Your task to perform on an android device: toggle translation in the chrome app Image 0: 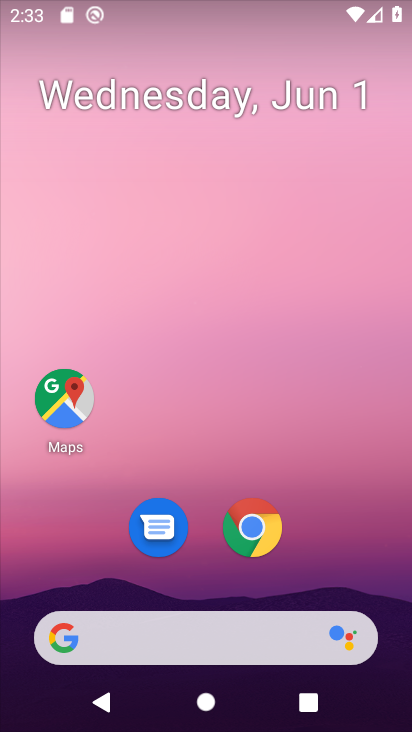
Step 0: click (262, 516)
Your task to perform on an android device: toggle translation in the chrome app Image 1: 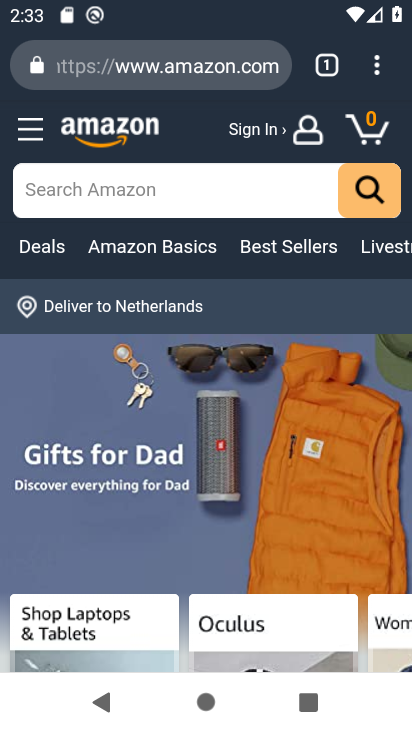
Step 1: click (372, 61)
Your task to perform on an android device: toggle translation in the chrome app Image 2: 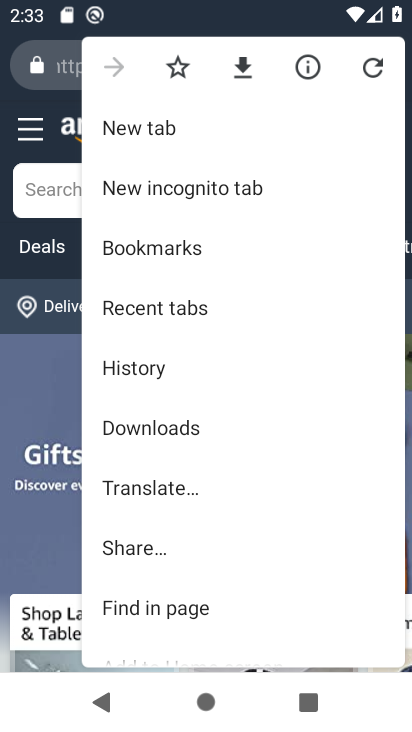
Step 2: drag from (183, 552) to (184, 390)
Your task to perform on an android device: toggle translation in the chrome app Image 3: 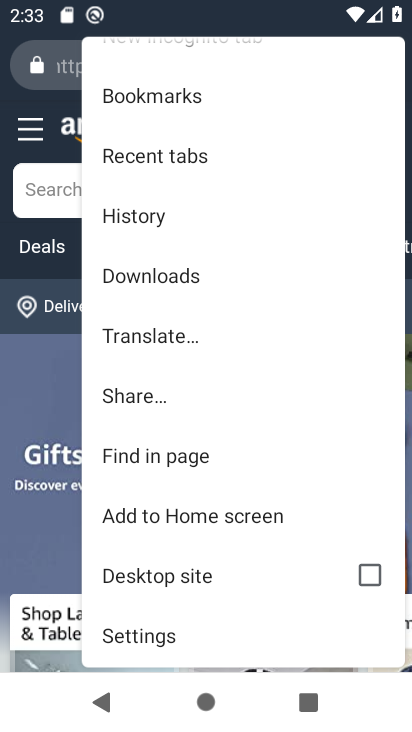
Step 3: drag from (151, 627) to (223, 211)
Your task to perform on an android device: toggle translation in the chrome app Image 4: 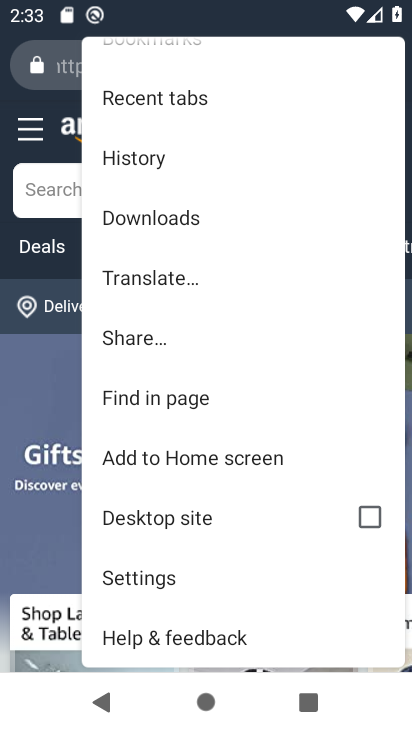
Step 4: click (158, 584)
Your task to perform on an android device: toggle translation in the chrome app Image 5: 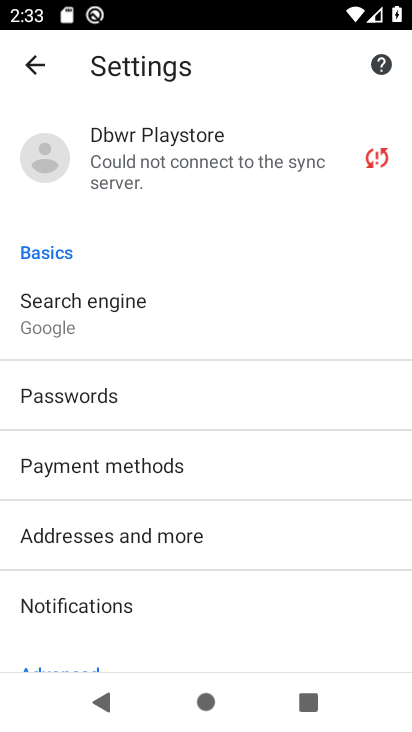
Step 5: drag from (166, 529) to (215, 67)
Your task to perform on an android device: toggle translation in the chrome app Image 6: 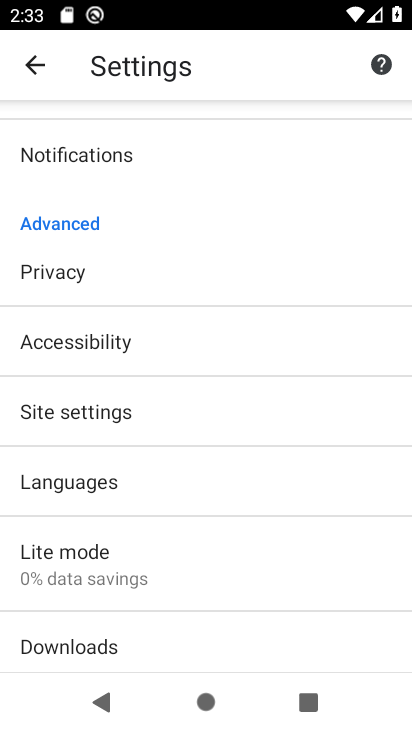
Step 6: click (100, 492)
Your task to perform on an android device: toggle translation in the chrome app Image 7: 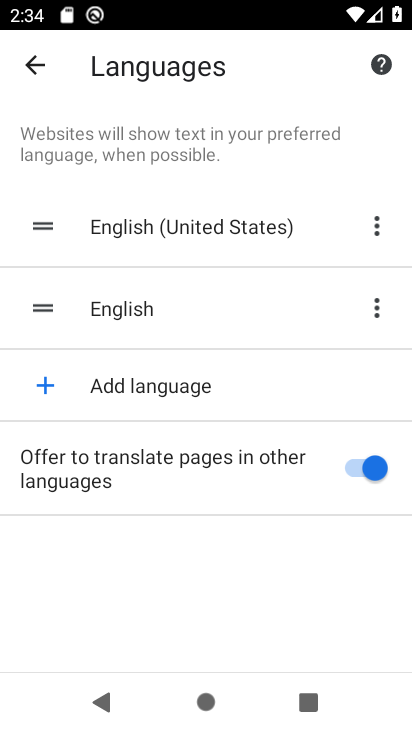
Step 7: click (338, 478)
Your task to perform on an android device: toggle translation in the chrome app Image 8: 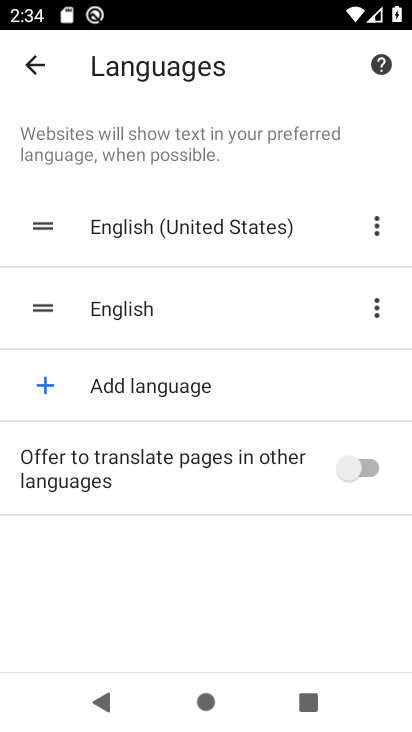
Step 8: task complete